Your task to perform on an android device: Go to battery settings Image 0: 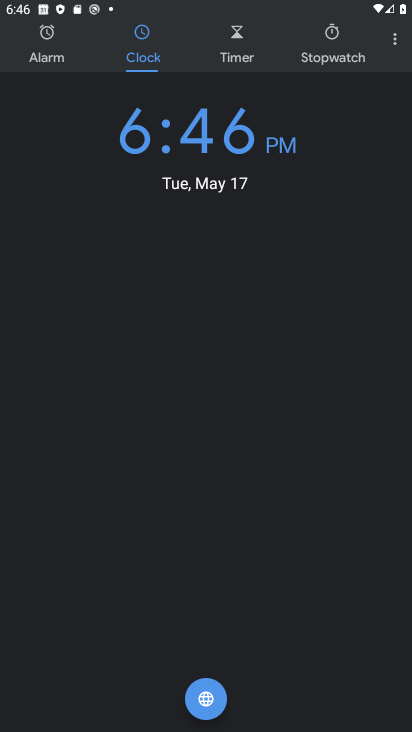
Step 0: press home button
Your task to perform on an android device: Go to battery settings Image 1: 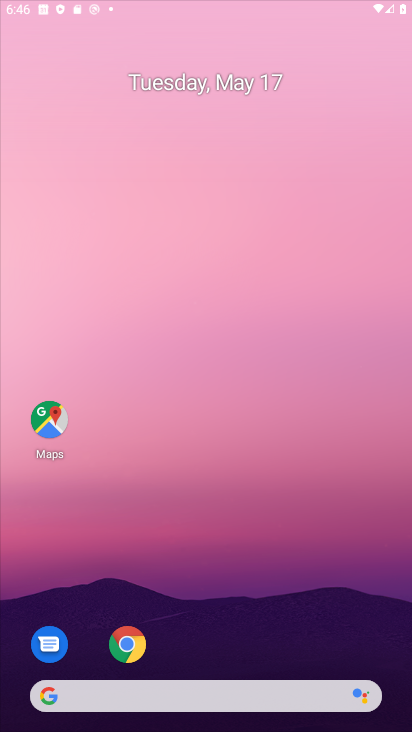
Step 1: drag from (357, 605) to (329, 71)
Your task to perform on an android device: Go to battery settings Image 2: 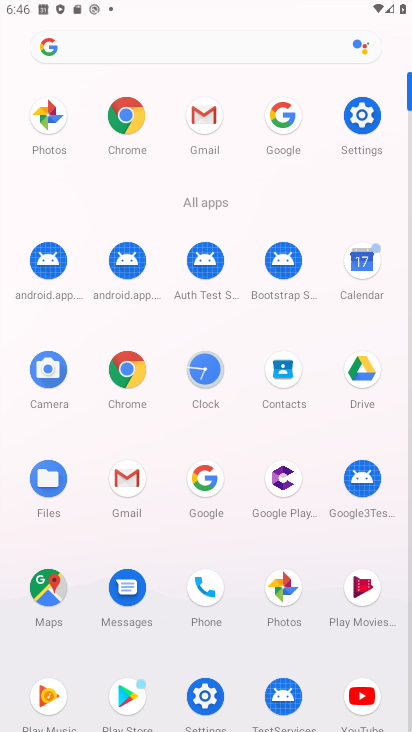
Step 2: click (370, 113)
Your task to perform on an android device: Go to battery settings Image 3: 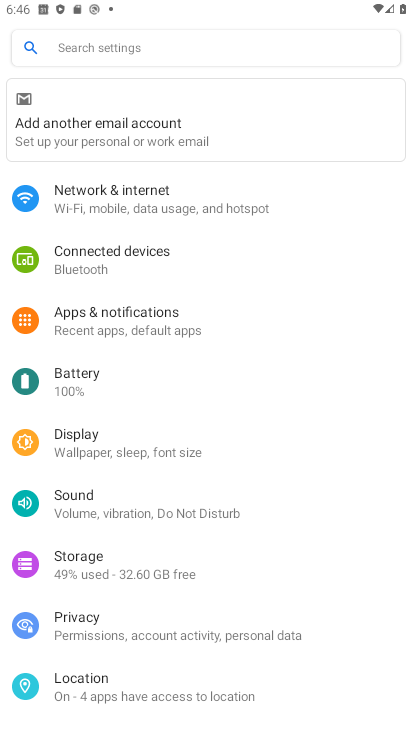
Step 3: click (123, 380)
Your task to perform on an android device: Go to battery settings Image 4: 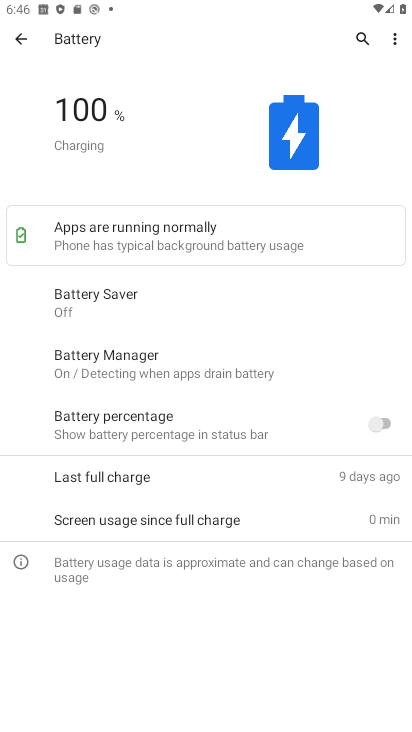
Step 4: task complete